Your task to perform on an android device: turn on showing notifications on the lock screen Image 0: 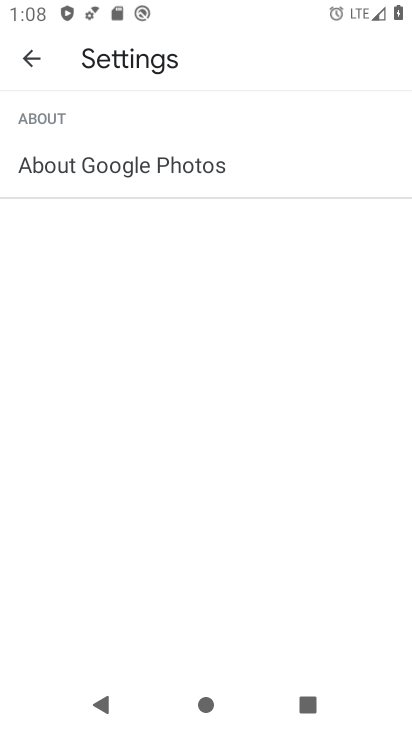
Step 0: press home button
Your task to perform on an android device: turn on showing notifications on the lock screen Image 1: 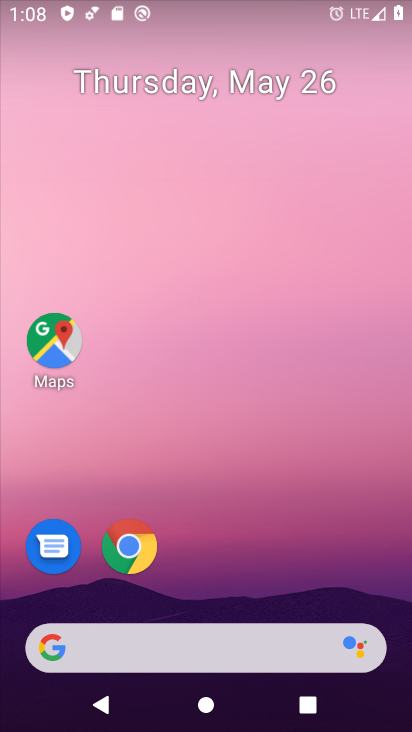
Step 1: drag from (401, 641) to (294, 121)
Your task to perform on an android device: turn on showing notifications on the lock screen Image 2: 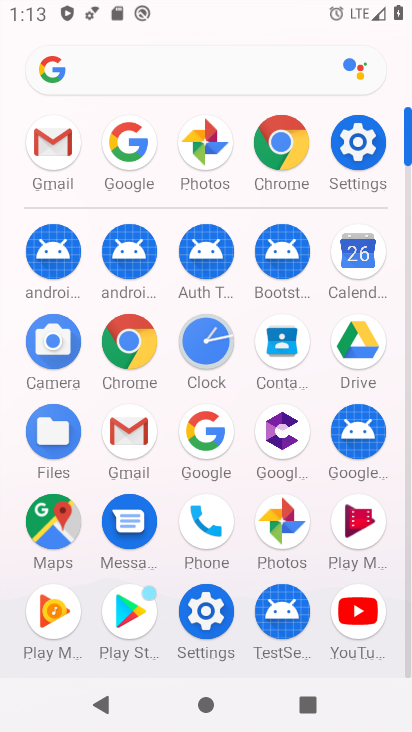
Step 2: click (353, 149)
Your task to perform on an android device: turn on showing notifications on the lock screen Image 3: 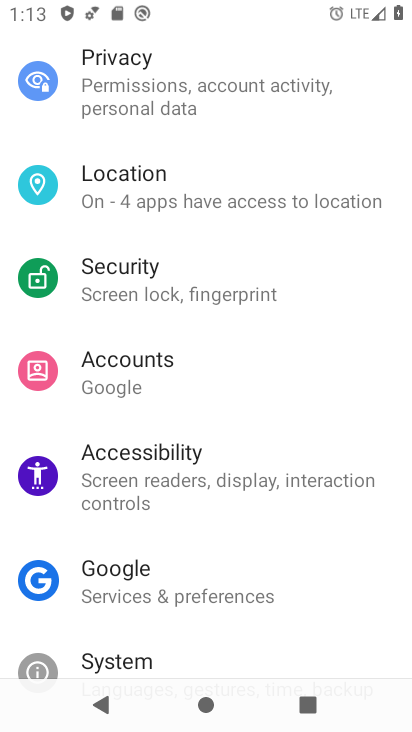
Step 3: task complete